Your task to perform on an android device: Turn on the flashlight Image 0: 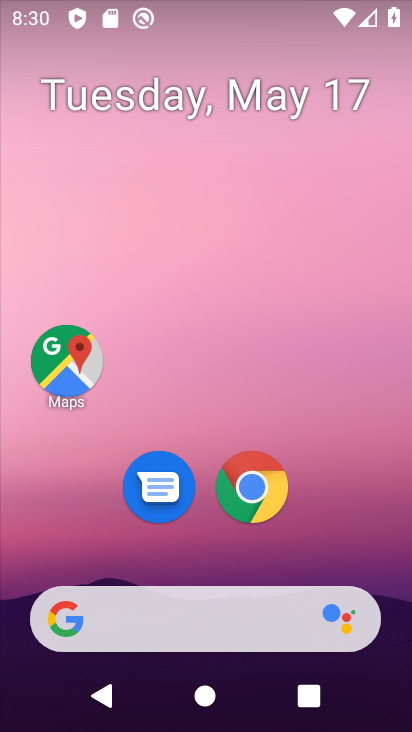
Step 0: drag from (213, 662) to (245, 161)
Your task to perform on an android device: Turn on the flashlight Image 1: 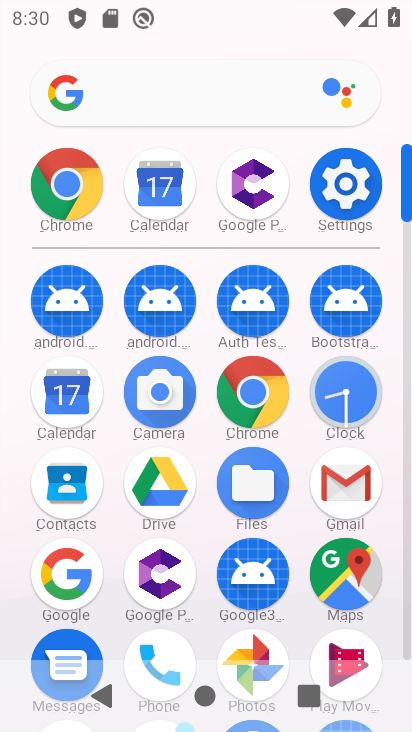
Step 1: click (321, 228)
Your task to perform on an android device: Turn on the flashlight Image 2: 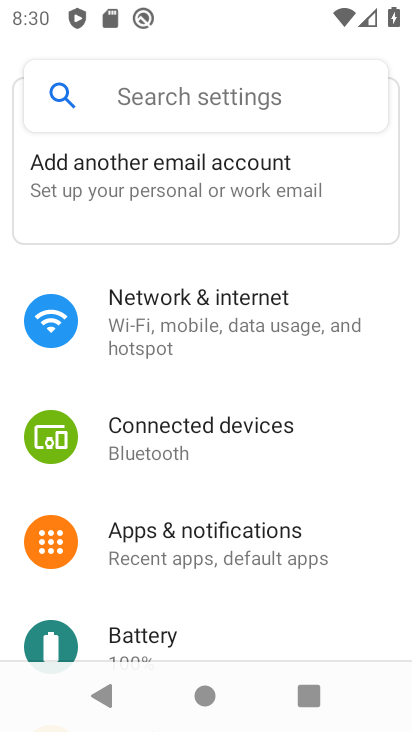
Step 2: click (140, 109)
Your task to perform on an android device: Turn on the flashlight Image 3: 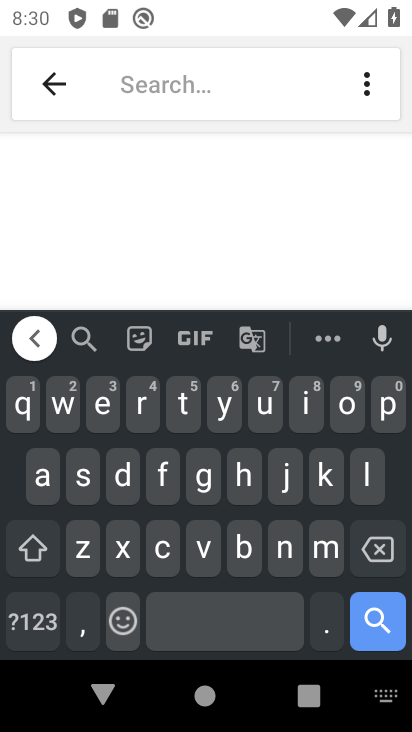
Step 3: click (172, 467)
Your task to perform on an android device: Turn on the flashlight Image 4: 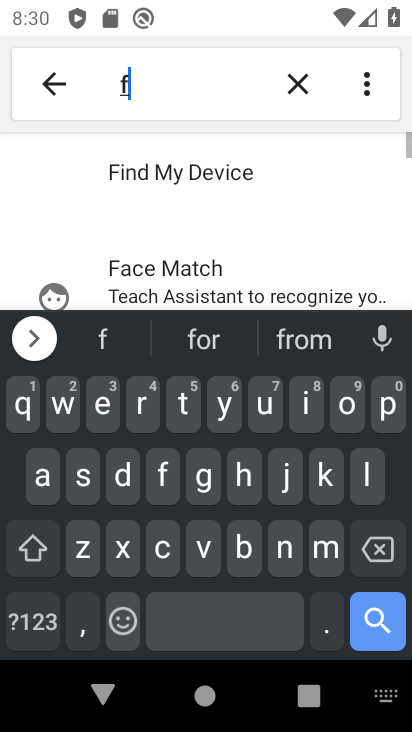
Step 4: click (367, 484)
Your task to perform on an android device: Turn on the flashlight Image 5: 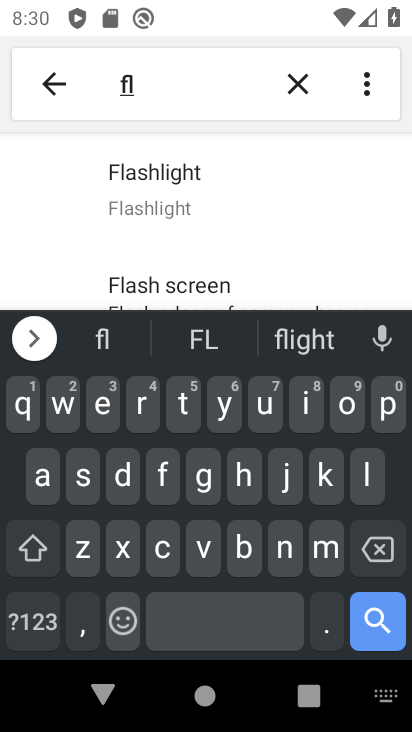
Step 5: click (176, 172)
Your task to perform on an android device: Turn on the flashlight Image 6: 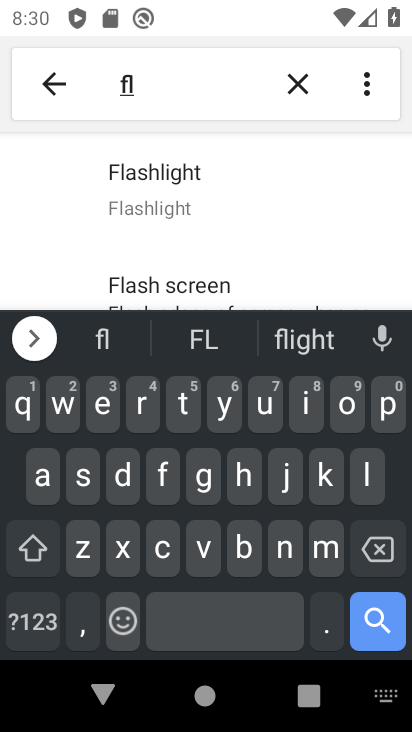
Step 6: click (189, 186)
Your task to perform on an android device: Turn on the flashlight Image 7: 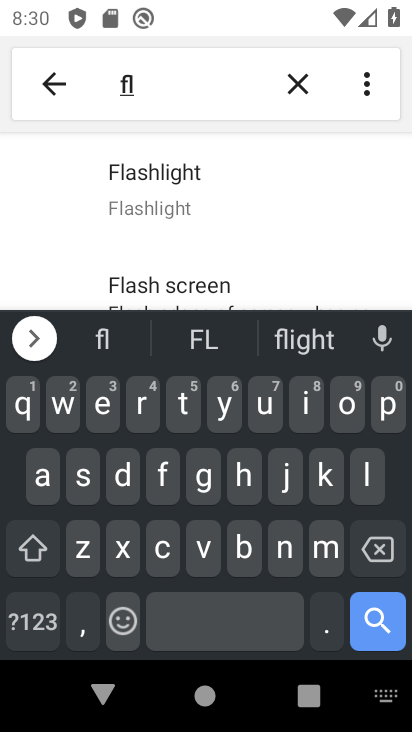
Step 7: task complete